Your task to perform on an android device: change alarm snooze length Image 0: 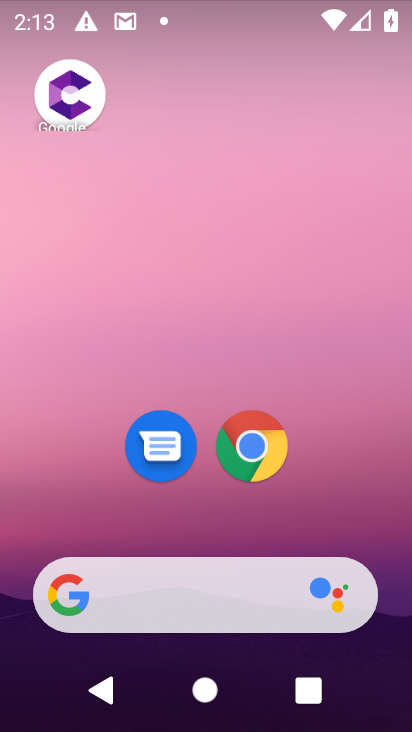
Step 0: click (224, 365)
Your task to perform on an android device: change alarm snooze length Image 1: 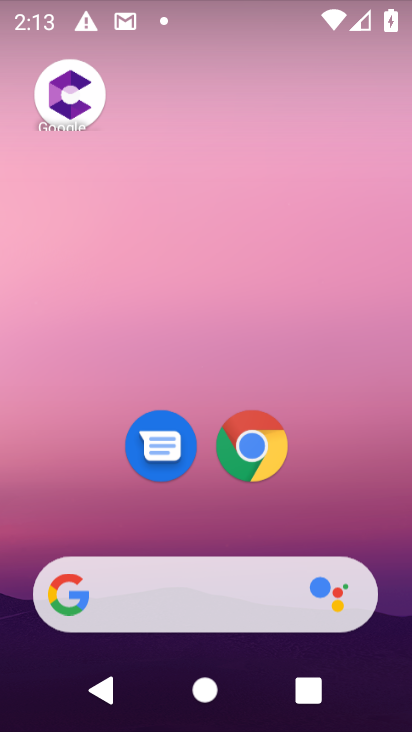
Step 1: drag from (241, 586) to (256, 315)
Your task to perform on an android device: change alarm snooze length Image 2: 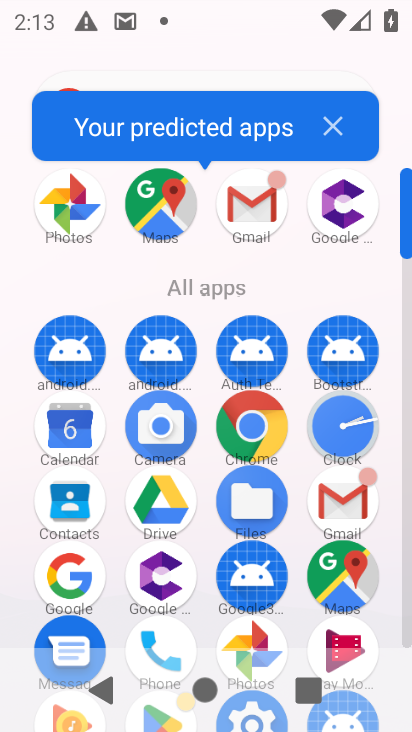
Step 2: click (326, 426)
Your task to perform on an android device: change alarm snooze length Image 3: 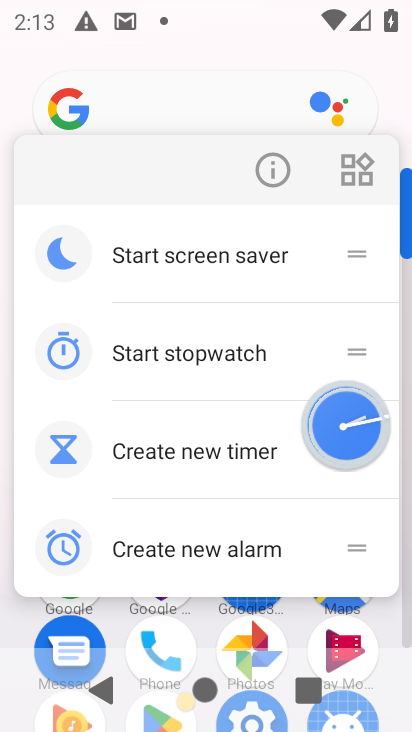
Step 3: click (329, 425)
Your task to perform on an android device: change alarm snooze length Image 4: 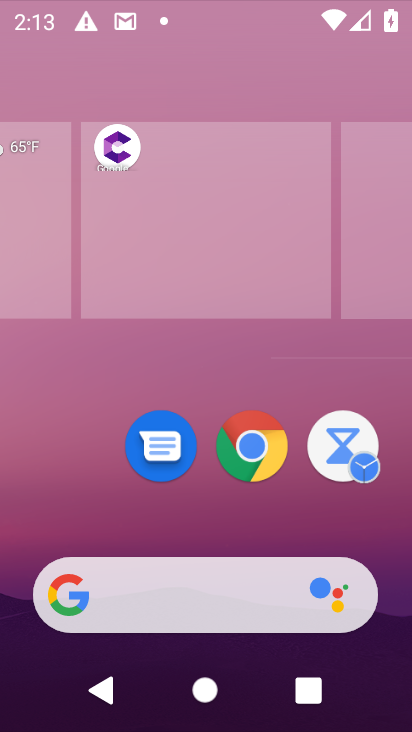
Step 4: drag from (255, 639) to (227, 197)
Your task to perform on an android device: change alarm snooze length Image 5: 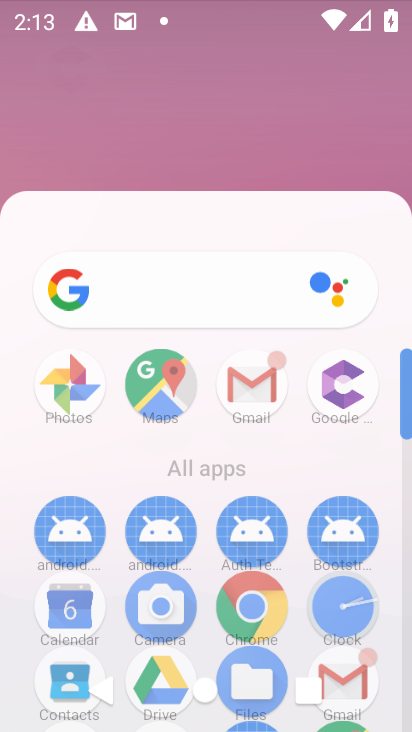
Step 5: drag from (266, 439) to (288, 115)
Your task to perform on an android device: change alarm snooze length Image 6: 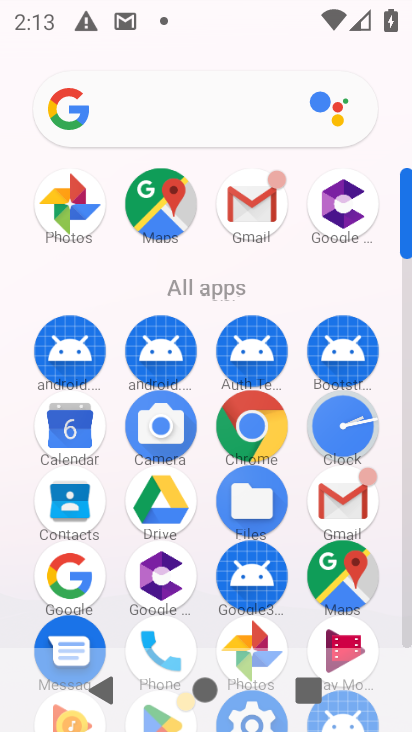
Step 6: drag from (286, 412) to (282, 200)
Your task to perform on an android device: change alarm snooze length Image 7: 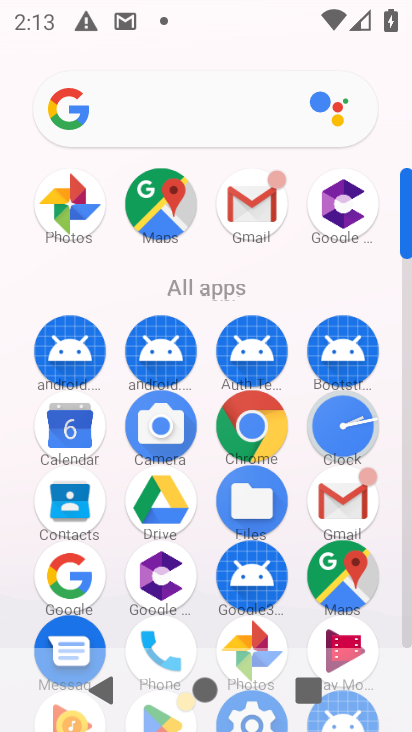
Step 7: click (352, 420)
Your task to perform on an android device: change alarm snooze length Image 8: 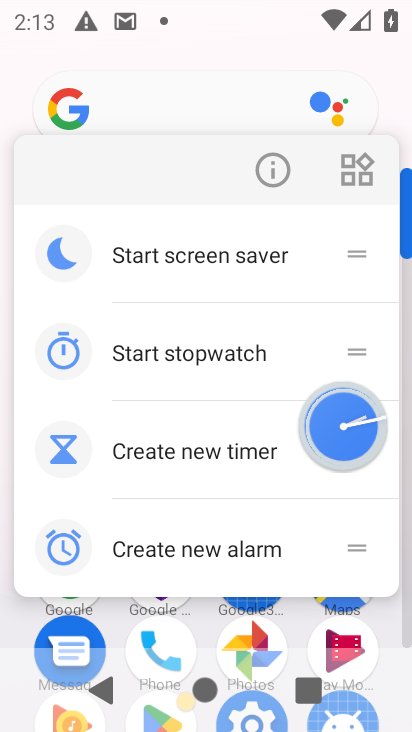
Step 8: click (350, 417)
Your task to perform on an android device: change alarm snooze length Image 9: 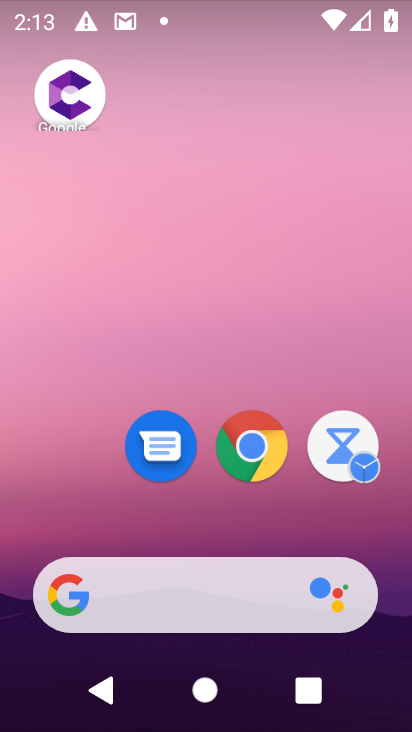
Step 9: drag from (268, 483) to (314, 145)
Your task to perform on an android device: change alarm snooze length Image 10: 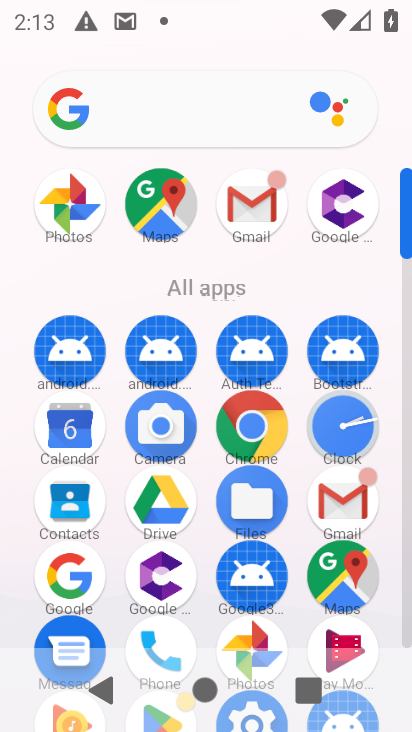
Step 10: click (347, 441)
Your task to perform on an android device: change alarm snooze length Image 11: 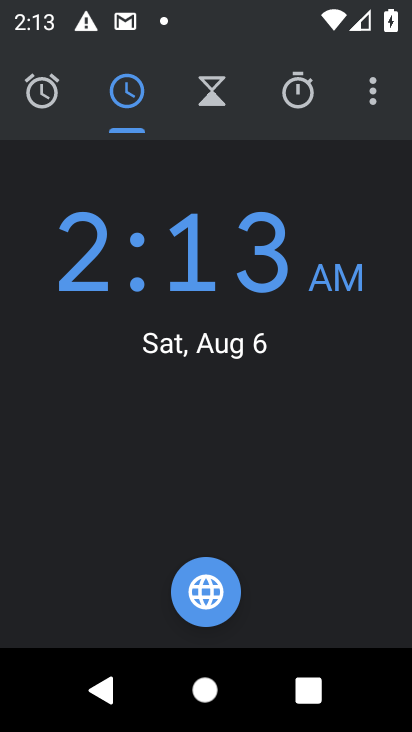
Step 11: drag from (369, 92) to (250, 566)
Your task to perform on an android device: change alarm snooze length Image 12: 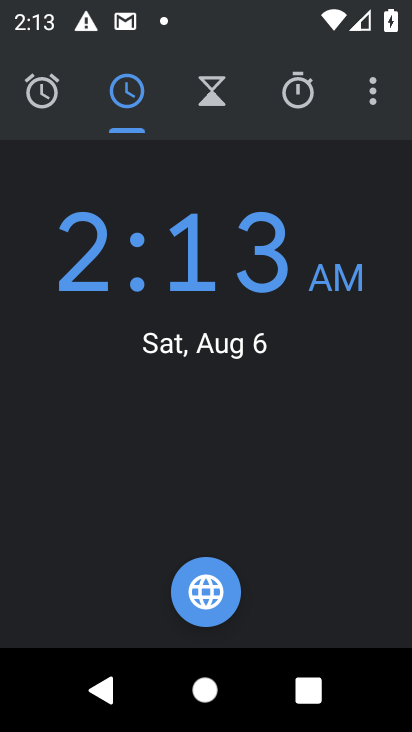
Step 12: drag from (371, 86) to (121, 191)
Your task to perform on an android device: change alarm snooze length Image 13: 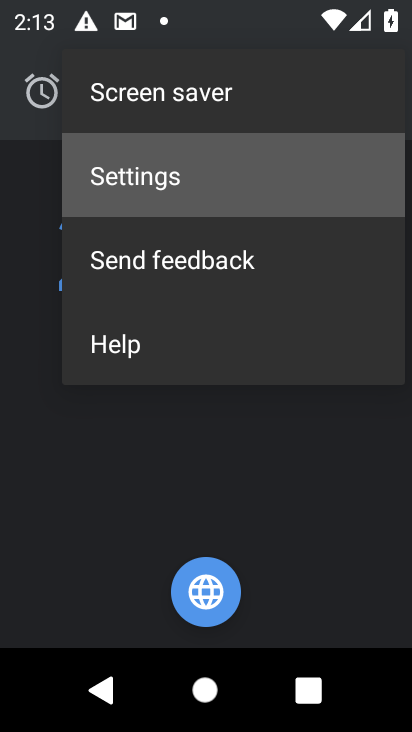
Step 13: click (121, 195)
Your task to perform on an android device: change alarm snooze length Image 14: 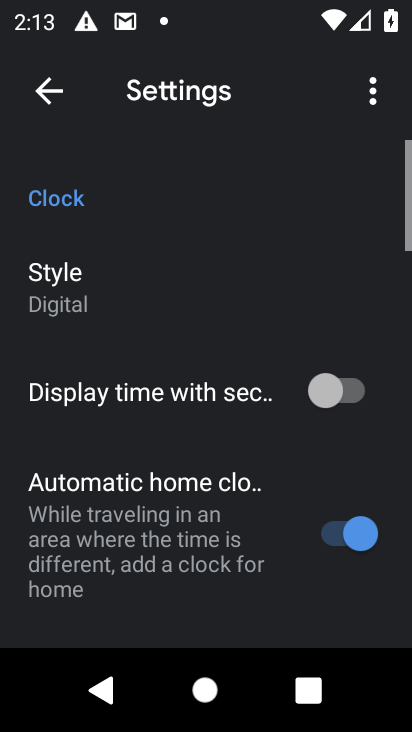
Step 14: drag from (246, 553) to (291, 134)
Your task to perform on an android device: change alarm snooze length Image 15: 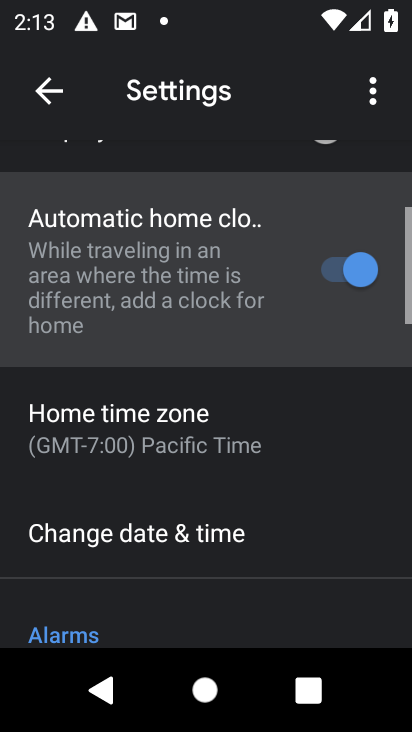
Step 15: drag from (175, 529) to (169, 161)
Your task to perform on an android device: change alarm snooze length Image 16: 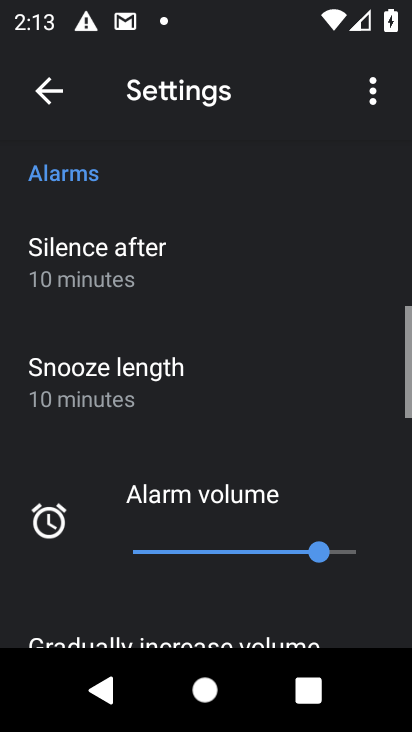
Step 16: drag from (165, 422) to (152, 302)
Your task to perform on an android device: change alarm snooze length Image 17: 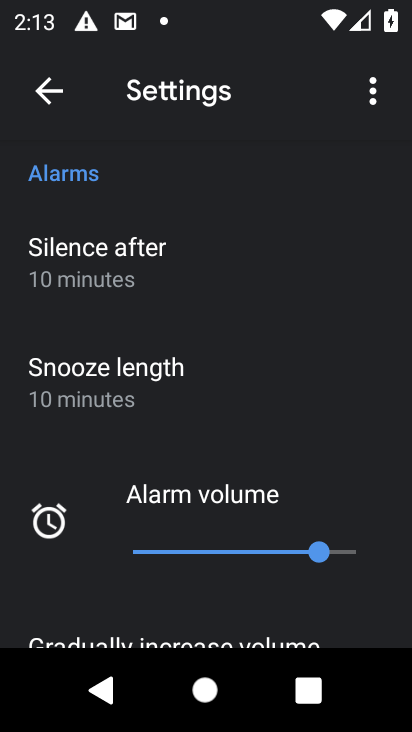
Step 17: drag from (245, 466) to (244, 195)
Your task to perform on an android device: change alarm snooze length Image 18: 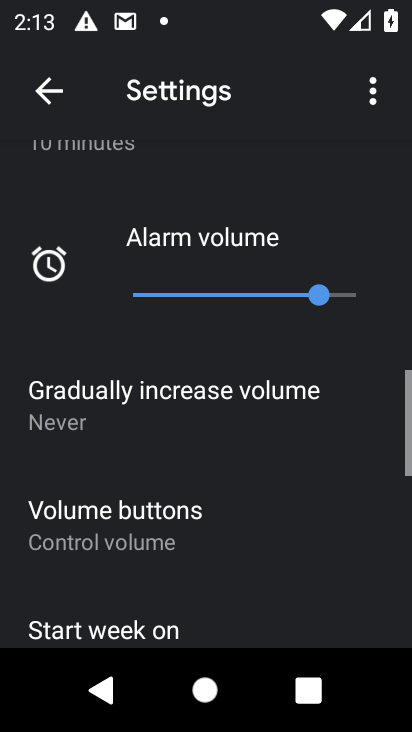
Step 18: drag from (244, 354) to (247, 100)
Your task to perform on an android device: change alarm snooze length Image 19: 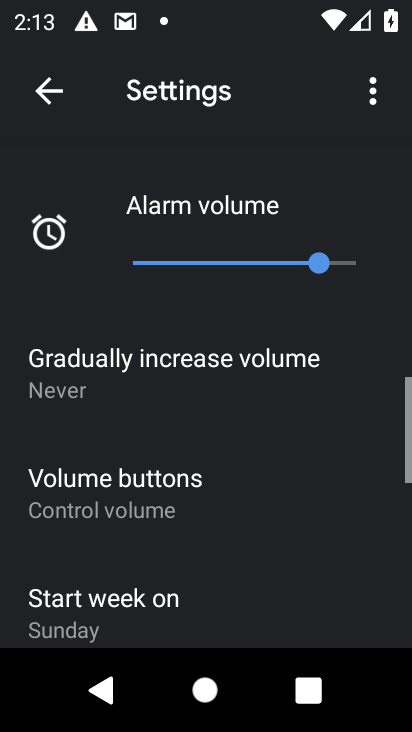
Step 19: click (222, 197)
Your task to perform on an android device: change alarm snooze length Image 20: 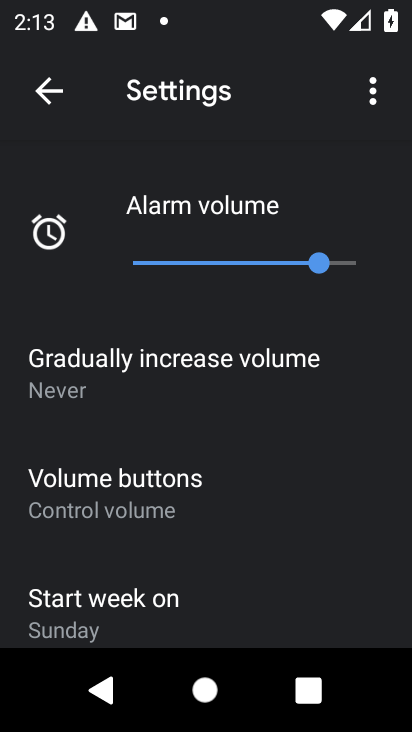
Step 20: drag from (150, 538) to (185, 247)
Your task to perform on an android device: change alarm snooze length Image 21: 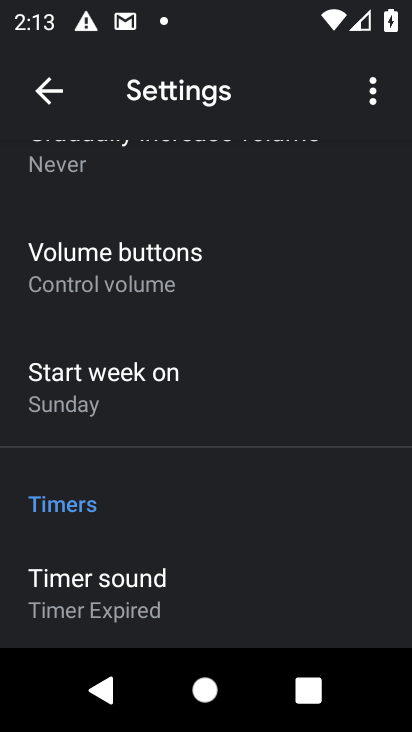
Step 21: drag from (186, 317) to (175, 484)
Your task to perform on an android device: change alarm snooze length Image 22: 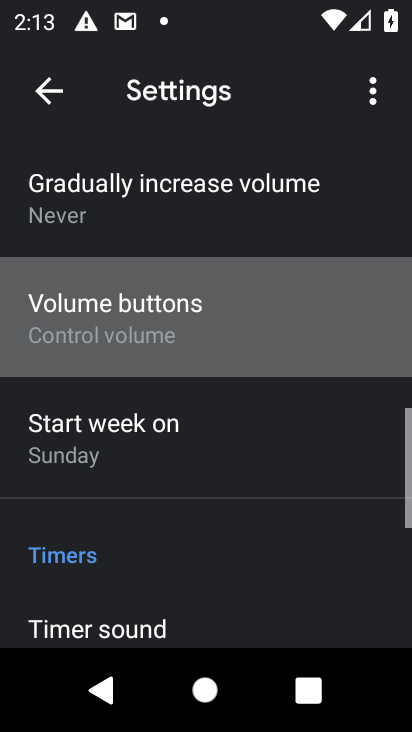
Step 22: drag from (139, 382) to (148, 585)
Your task to perform on an android device: change alarm snooze length Image 23: 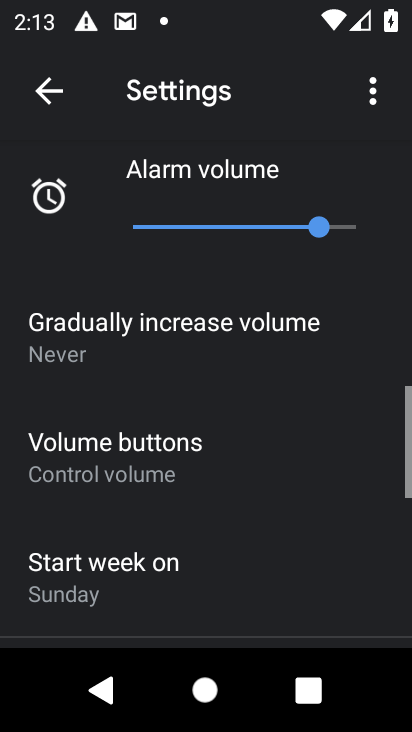
Step 23: drag from (130, 452) to (124, 617)
Your task to perform on an android device: change alarm snooze length Image 24: 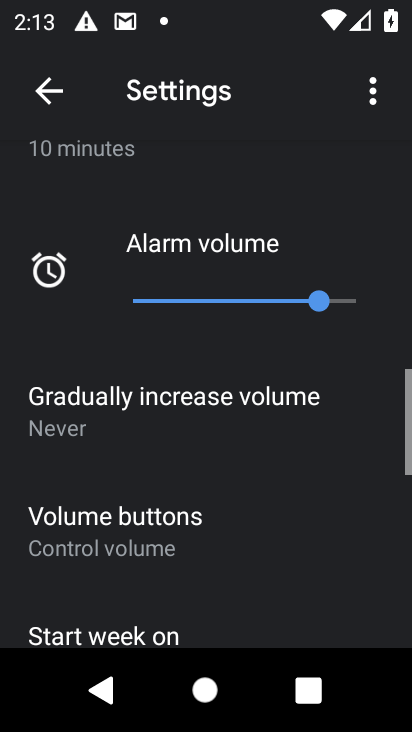
Step 24: drag from (187, 462) to (194, 603)
Your task to perform on an android device: change alarm snooze length Image 25: 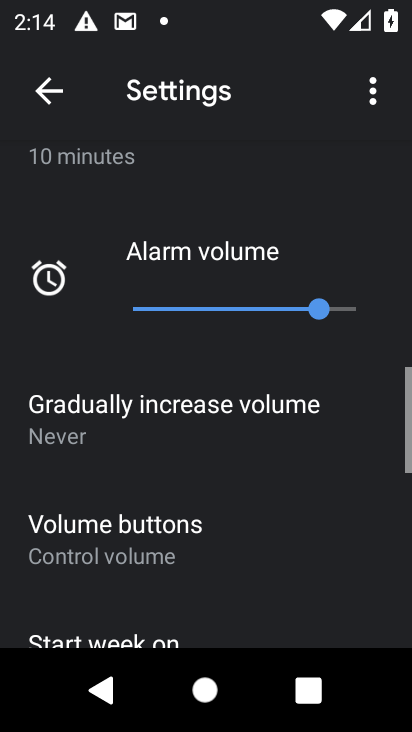
Step 25: drag from (197, 359) to (195, 641)
Your task to perform on an android device: change alarm snooze length Image 26: 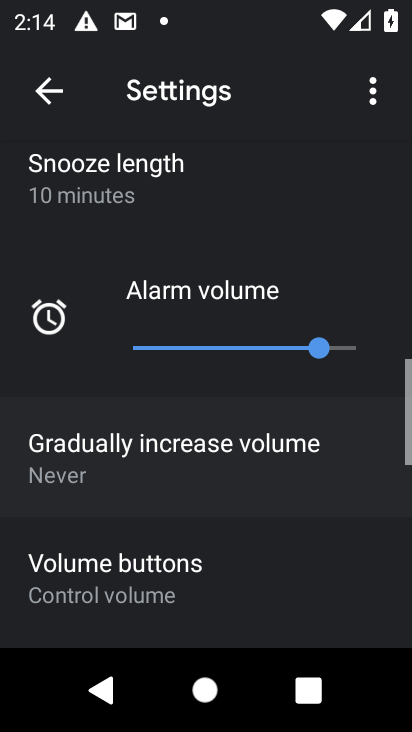
Step 26: drag from (191, 316) to (225, 527)
Your task to perform on an android device: change alarm snooze length Image 27: 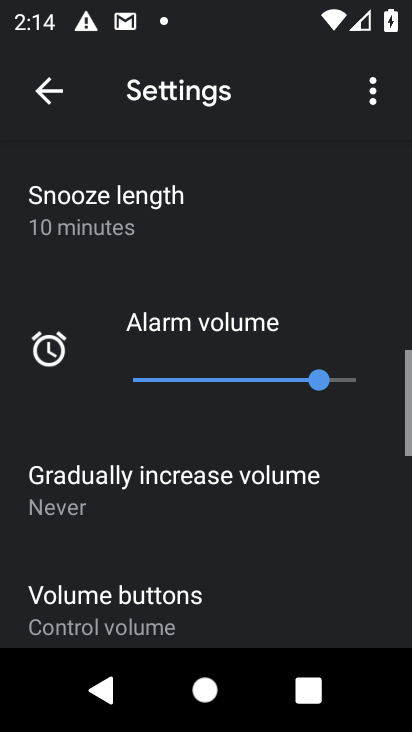
Step 27: drag from (235, 312) to (228, 552)
Your task to perform on an android device: change alarm snooze length Image 28: 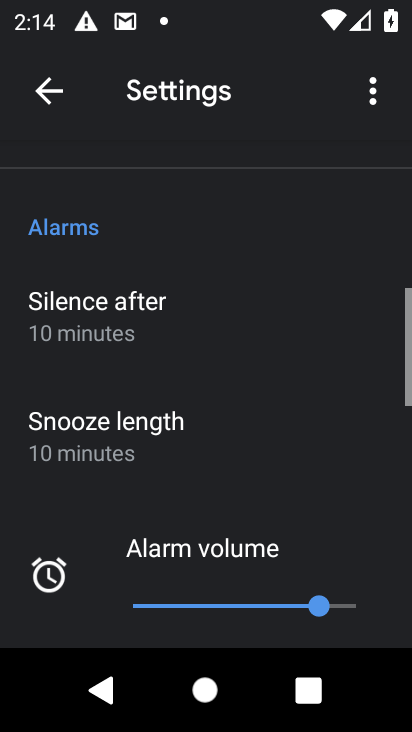
Step 28: drag from (208, 392) to (217, 637)
Your task to perform on an android device: change alarm snooze length Image 29: 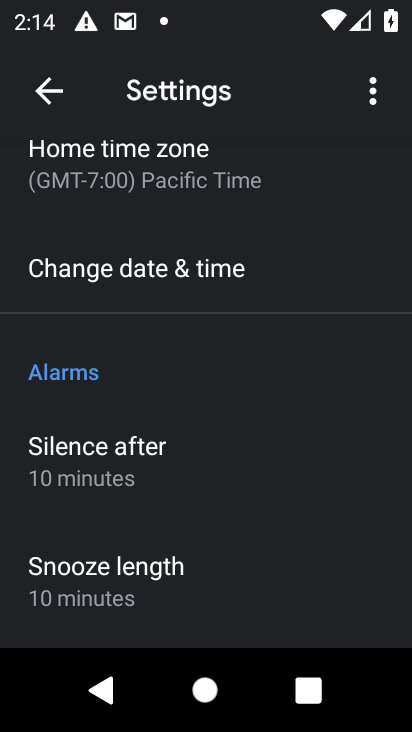
Step 29: click (101, 586)
Your task to perform on an android device: change alarm snooze length Image 30: 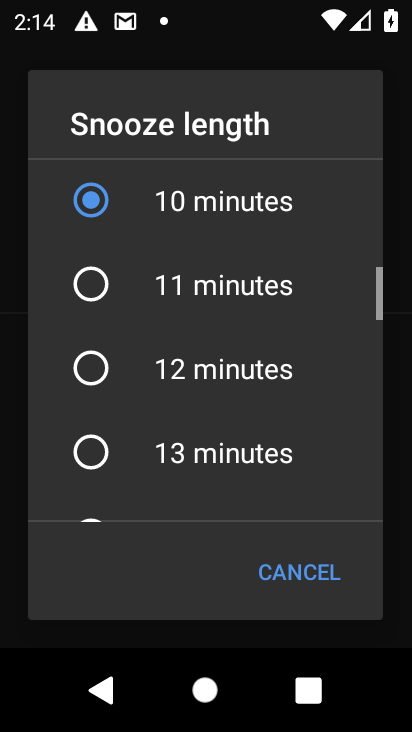
Step 30: click (95, 296)
Your task to perform on an android device: change alarm snooze length Image 31: 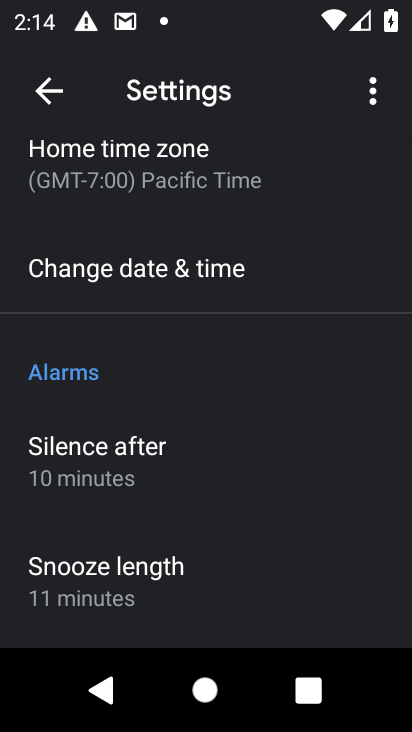
Step 31: task complete